Your task to perform on an android device: find which apps use the phone's location Image 0: 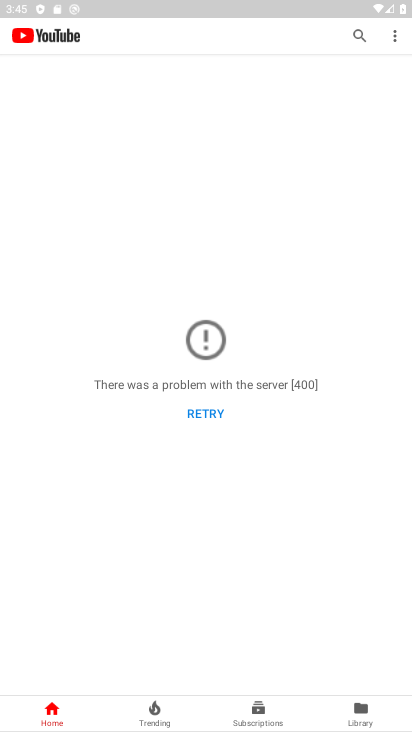
Step 0: press home button
Your task to perform on an android device: find which apps use the phone's location Image 1: 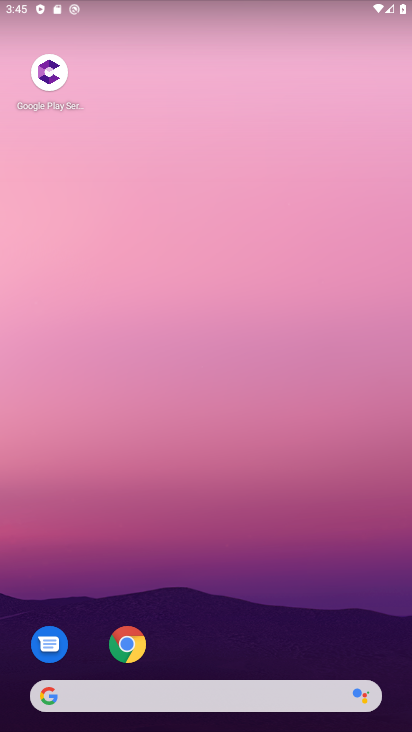
Step 1: drag from (248, 574) to (255, 15)
Your task to perform on an android device: find which apps use the phone's location Image 2: 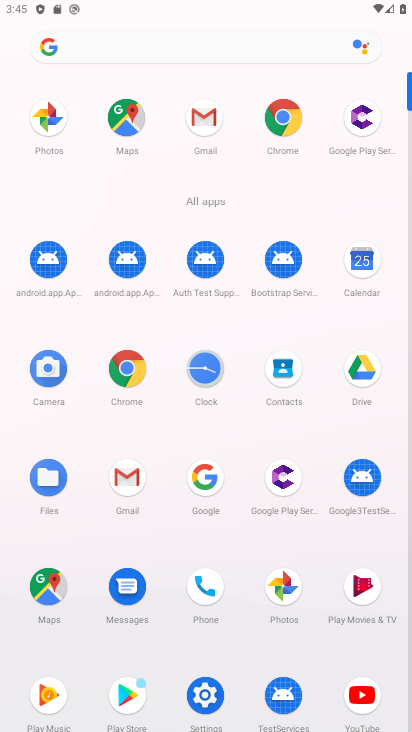
Step 2: drag from (232, 548) to (250, 447)
Your task to perform on an android device: find which apps use the phone's location Image 3: 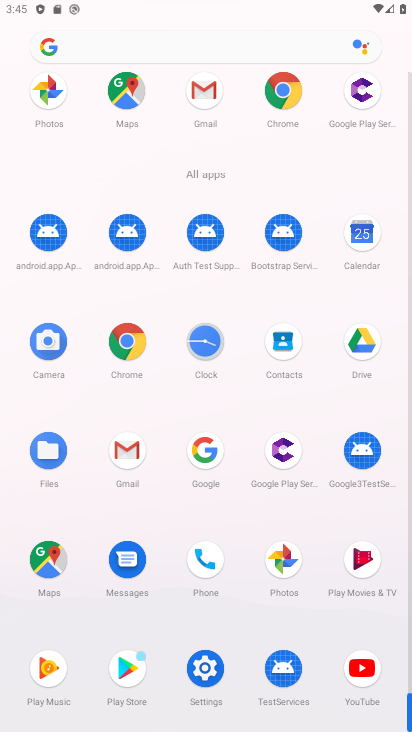
Step 3: click (202, 668)
Your task to perform on an android device: find which apps use the phone's location Image 4: 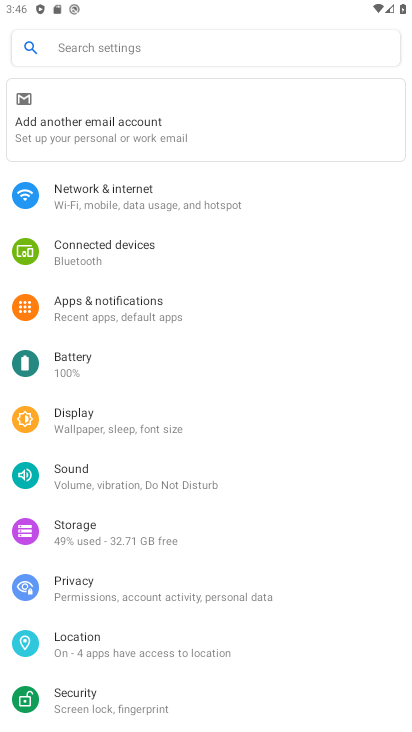
Step 4: click (83, 636)
Your task to perform on an android device: find which apps use the phone's location Image 5: 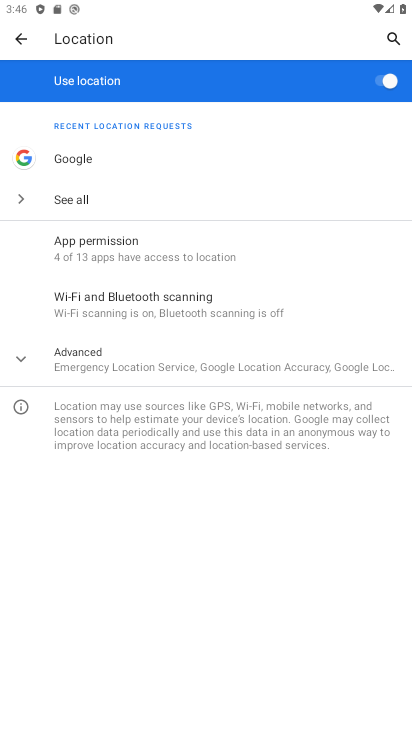
Step 5: click (104, 250)
Your task to perform on an android device: find which apps use the phone's location Image 6: 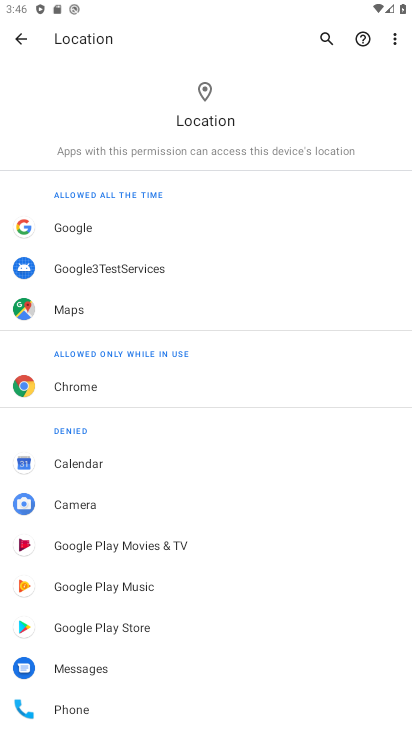
Step 6: click (73, 308)
Your task to perform on an android device: find which apps use the phone's location Image 7: 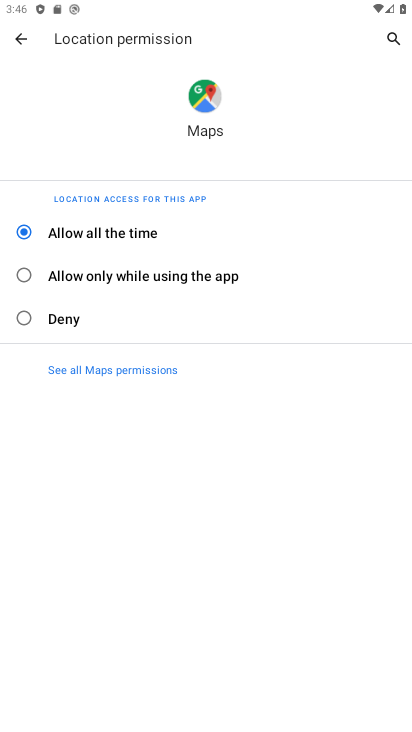
Step 7: click (85, 229)
Your task to perform on an android device: find which apps use the phone's location Image 8: 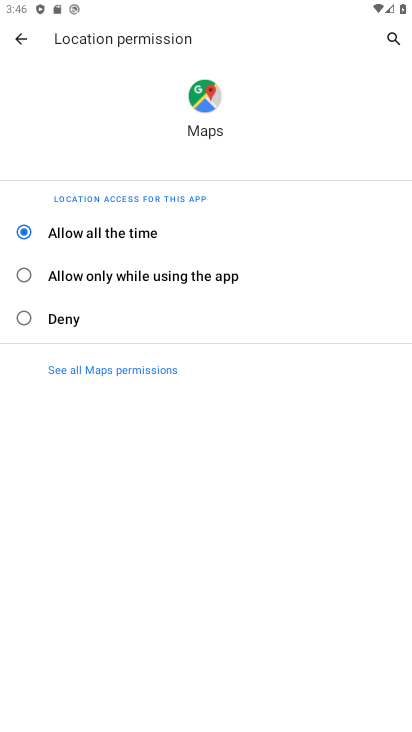
Step 8: task complete